Your task to perform on an android device: turn on wifi Image 0: 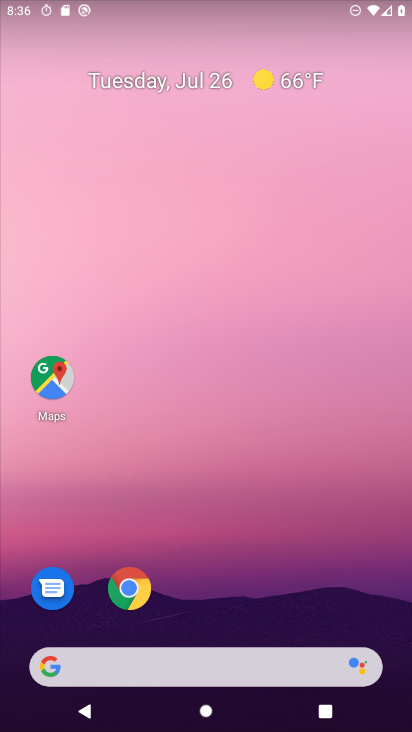
Step 0: drag from (229, 716) to (244, 302)
Your task to perform on an android device: turn on wifi Image 1: 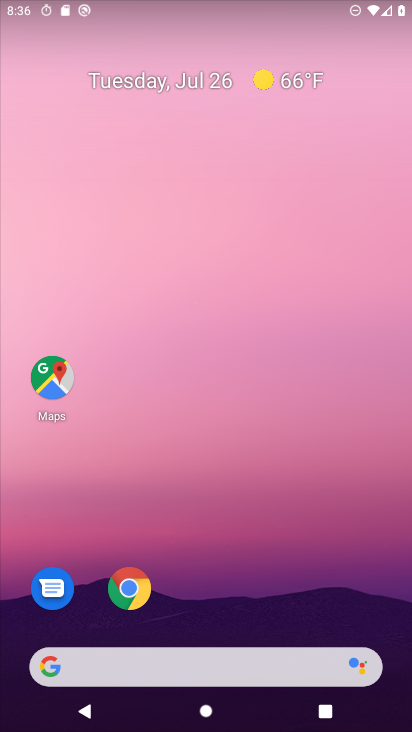
Step 1: drag from (225, 694) to (276, 128)
Your task to perform on an android device: turn on wifi Image 2: 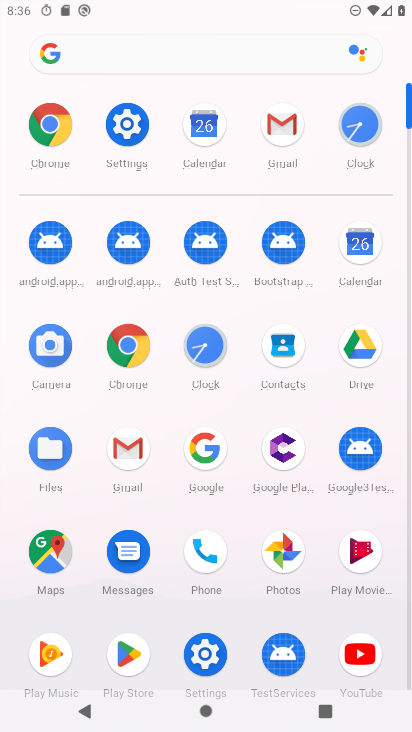
Step 2: click (121, 121)
Your task to perform on an android device: turn on wifi Image 3: 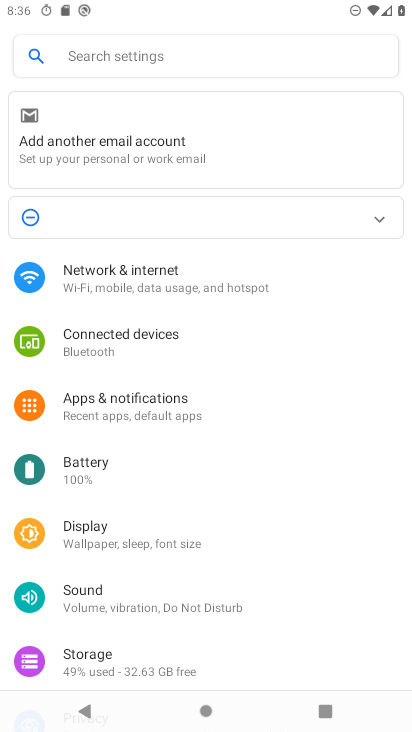
Step 3: click (88, 274)
Your task to perform on an android device: turn on wifi Image 4: 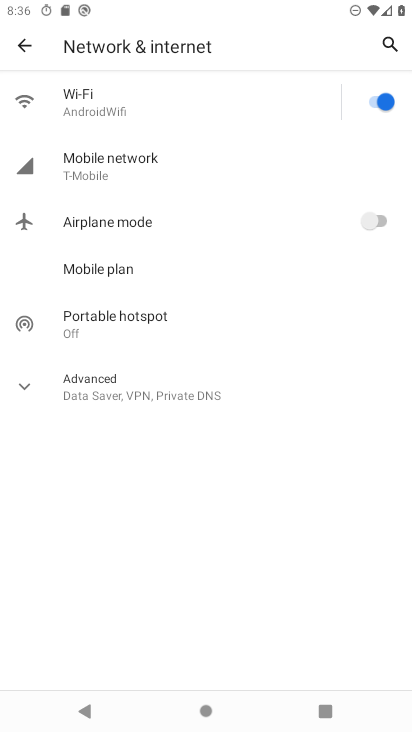
Step 4: task complete